Your task to perform on an android device: add a contact in the contacts app Image 0: 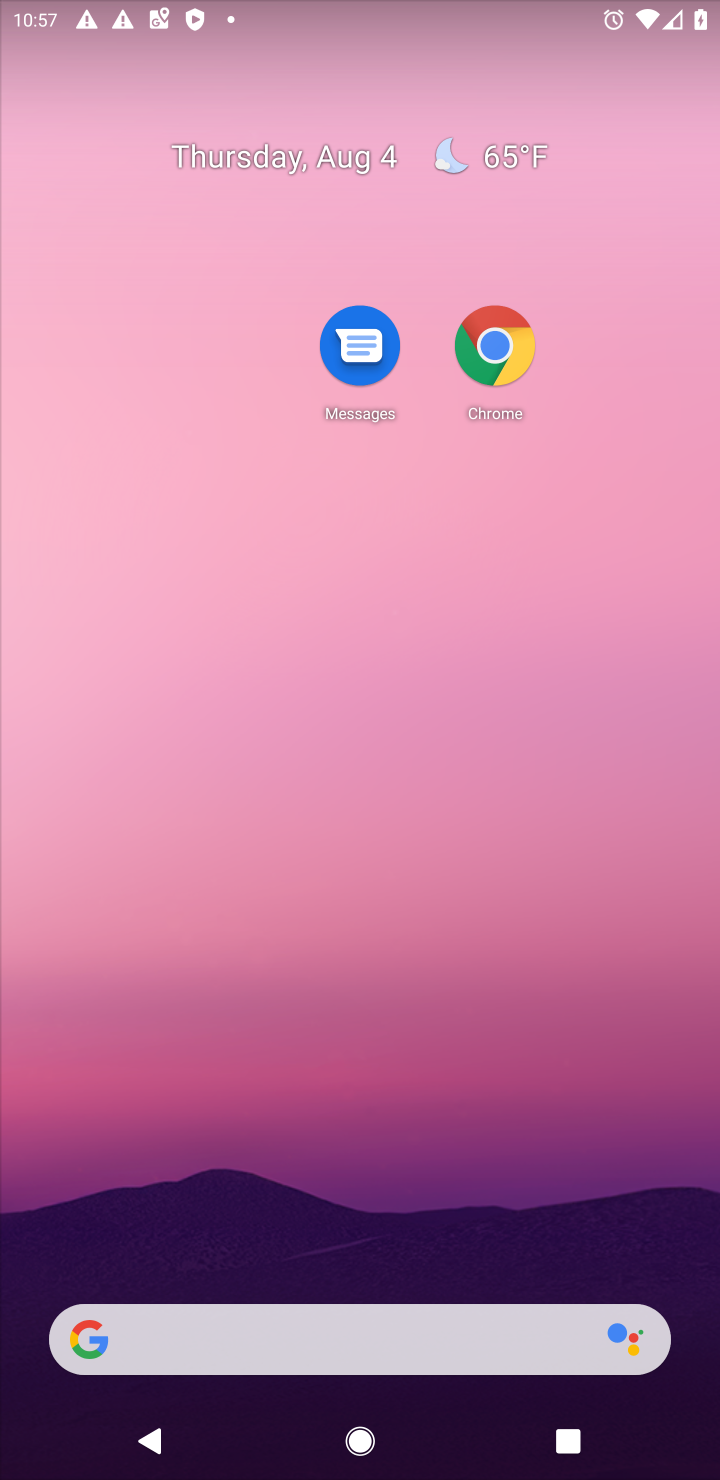
Step 0: drag from (557, 494) to (600, 3)
Your task to perform on an android device: add a contact in the contacts app Image 1: 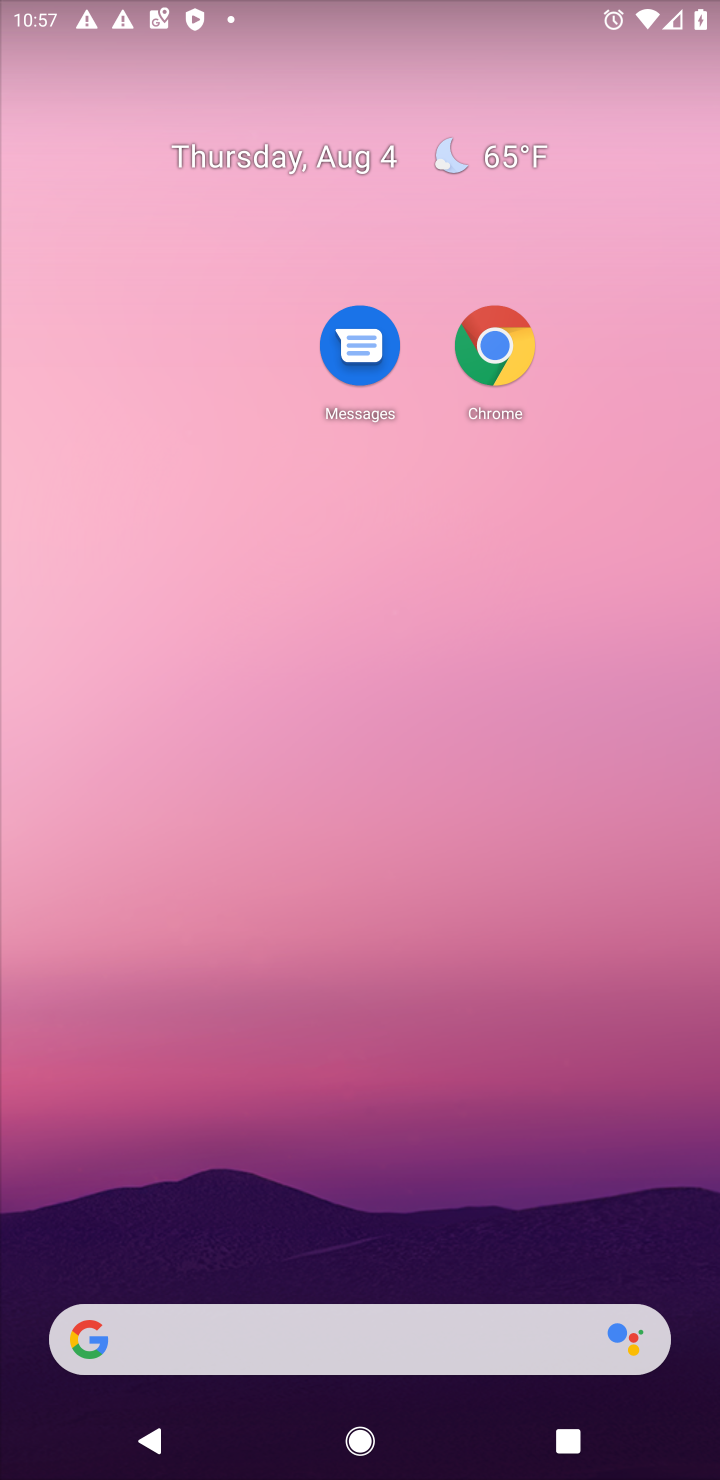
Step 1: drag from (431, 1362) to (451, 19)
Your task to perform on an android device: add a contact in the contacts app Image 2: 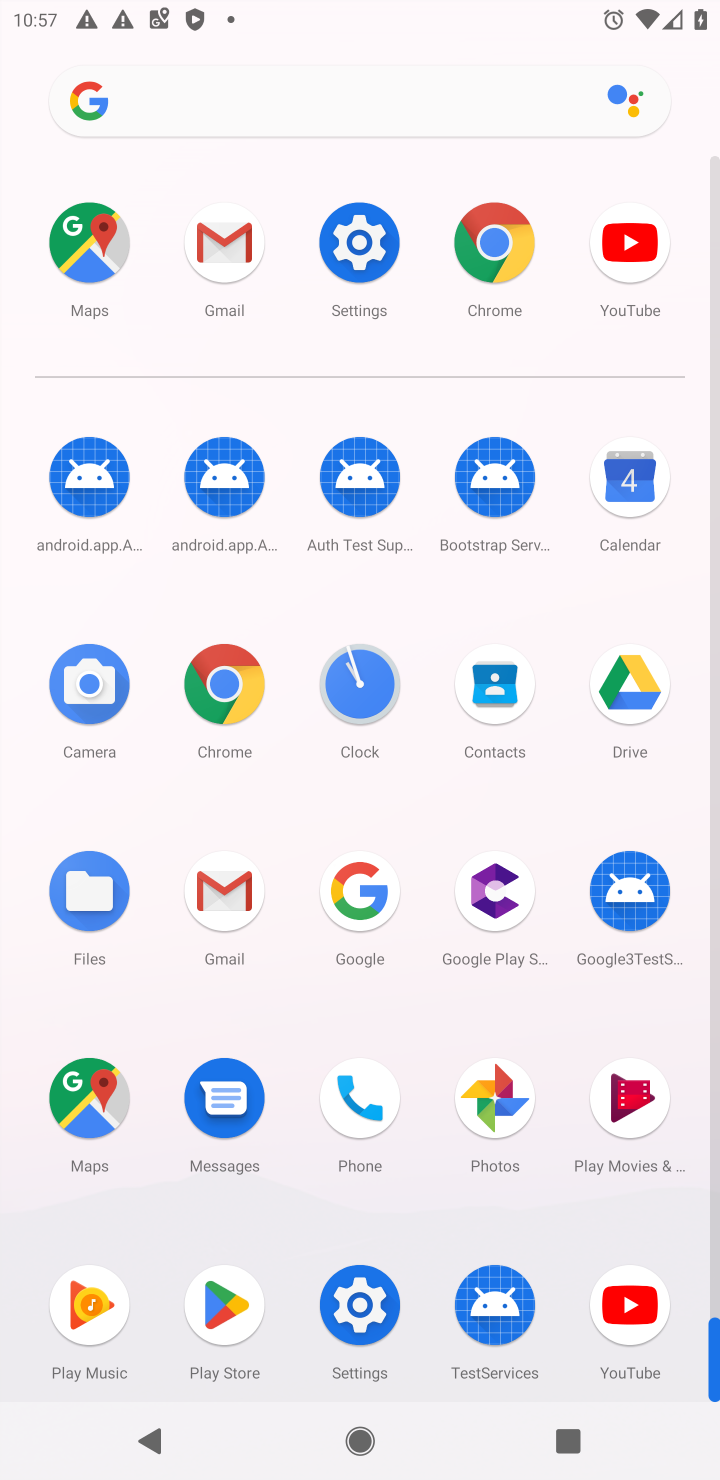
Step 2: click (380, 1108)
Your task to perform on an android device: add a contact in the contacts app Image 3: 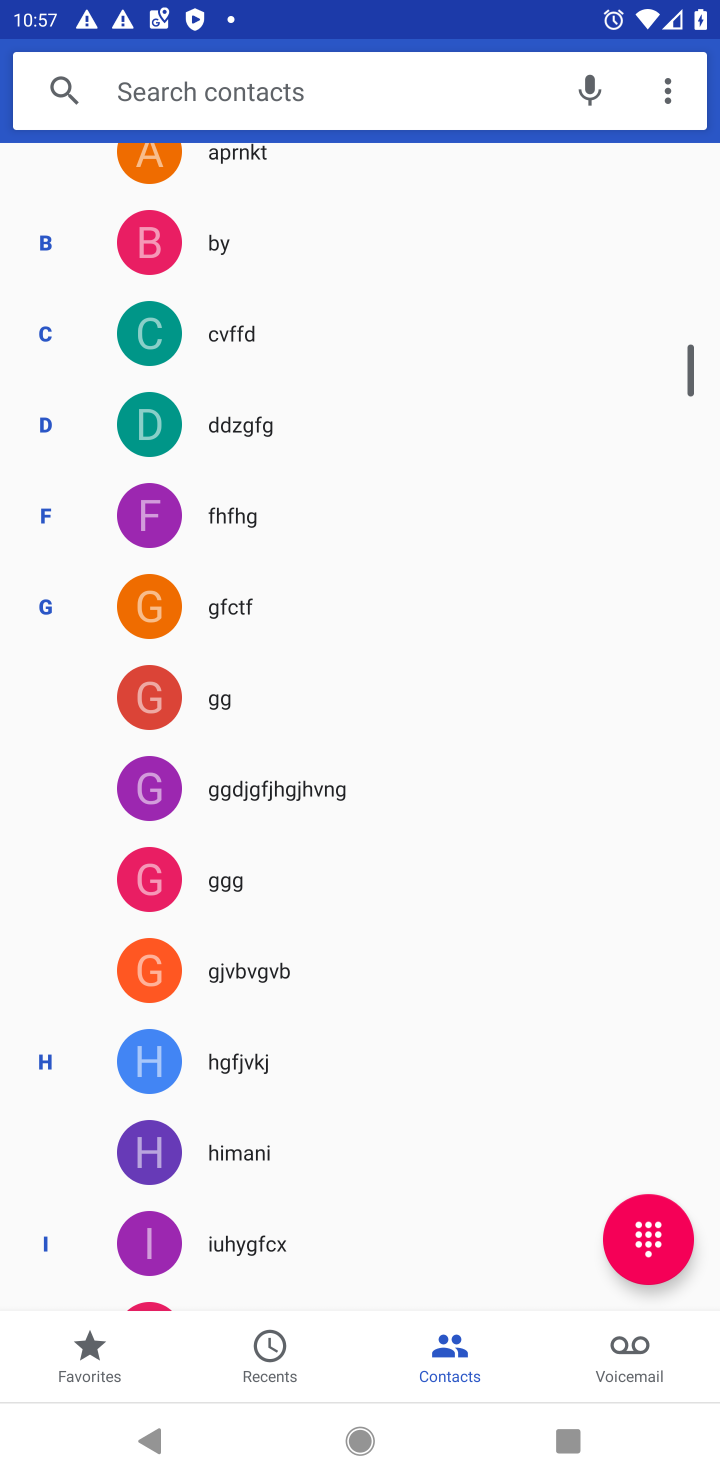
Step 3: drag from (401, 652) to (286, 1422)
Your task to perform on an android device: add a contact in the contacts app Image 4: 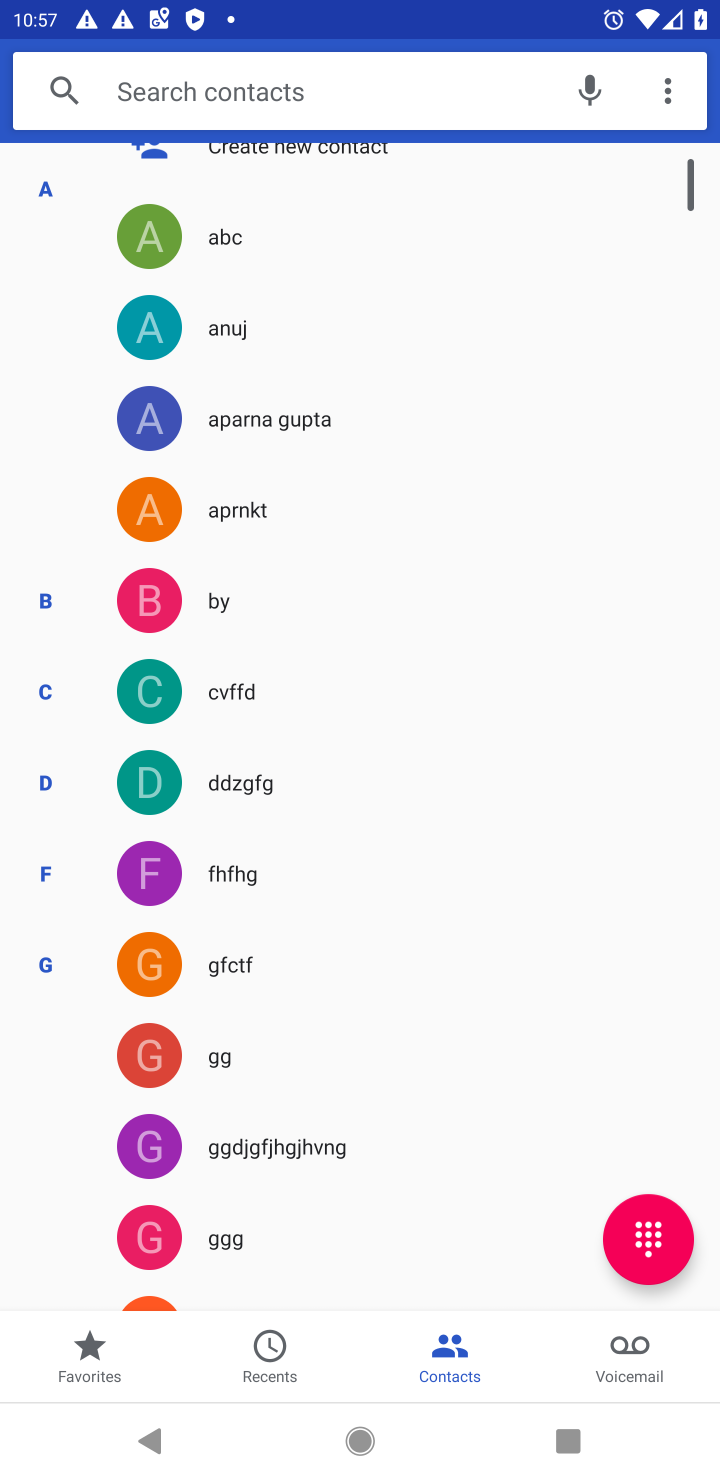
Step 4: drag from (278, 528) to (159, 1335)
Your task to perform on an android device: add a contact in the contacts app Image 5: 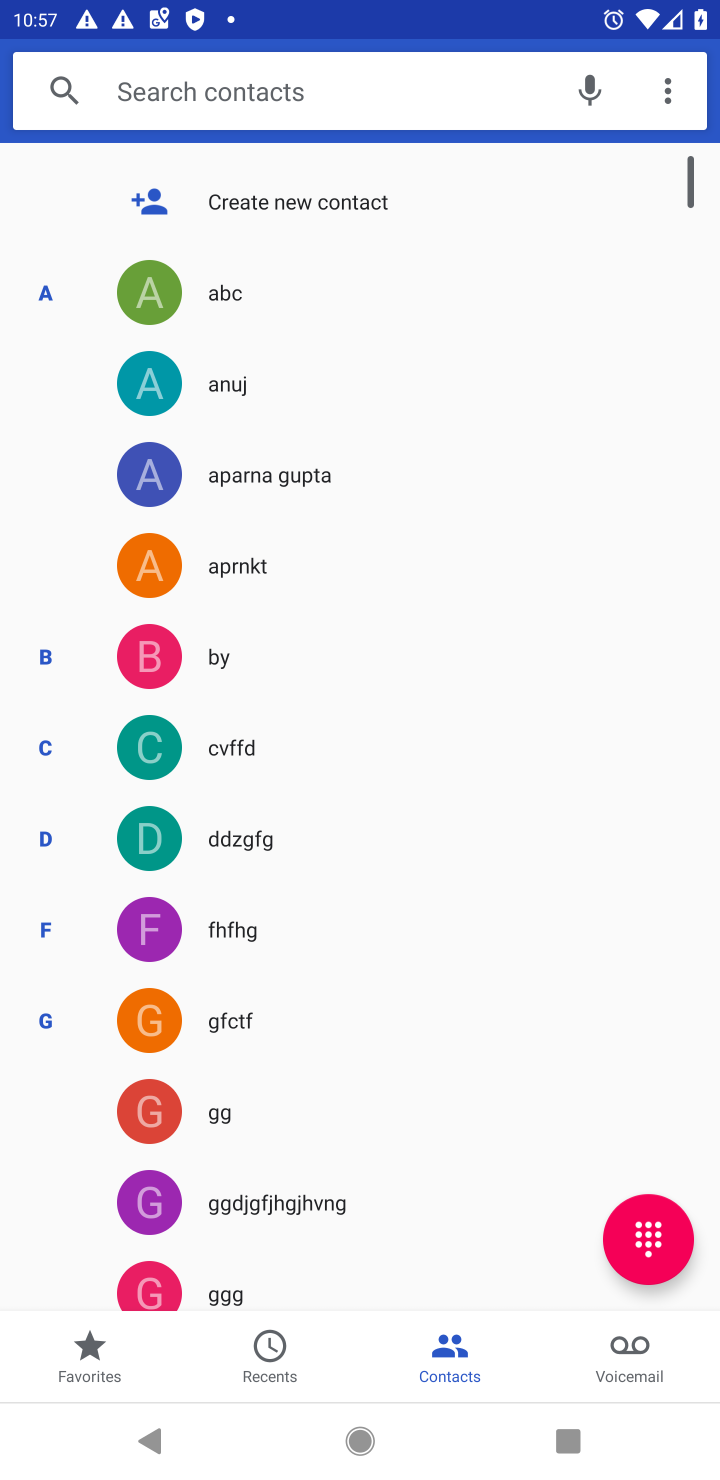
Step 5: click (273, 202)
Your task to perform on an android device: add a contact in the contacts app Image 6: 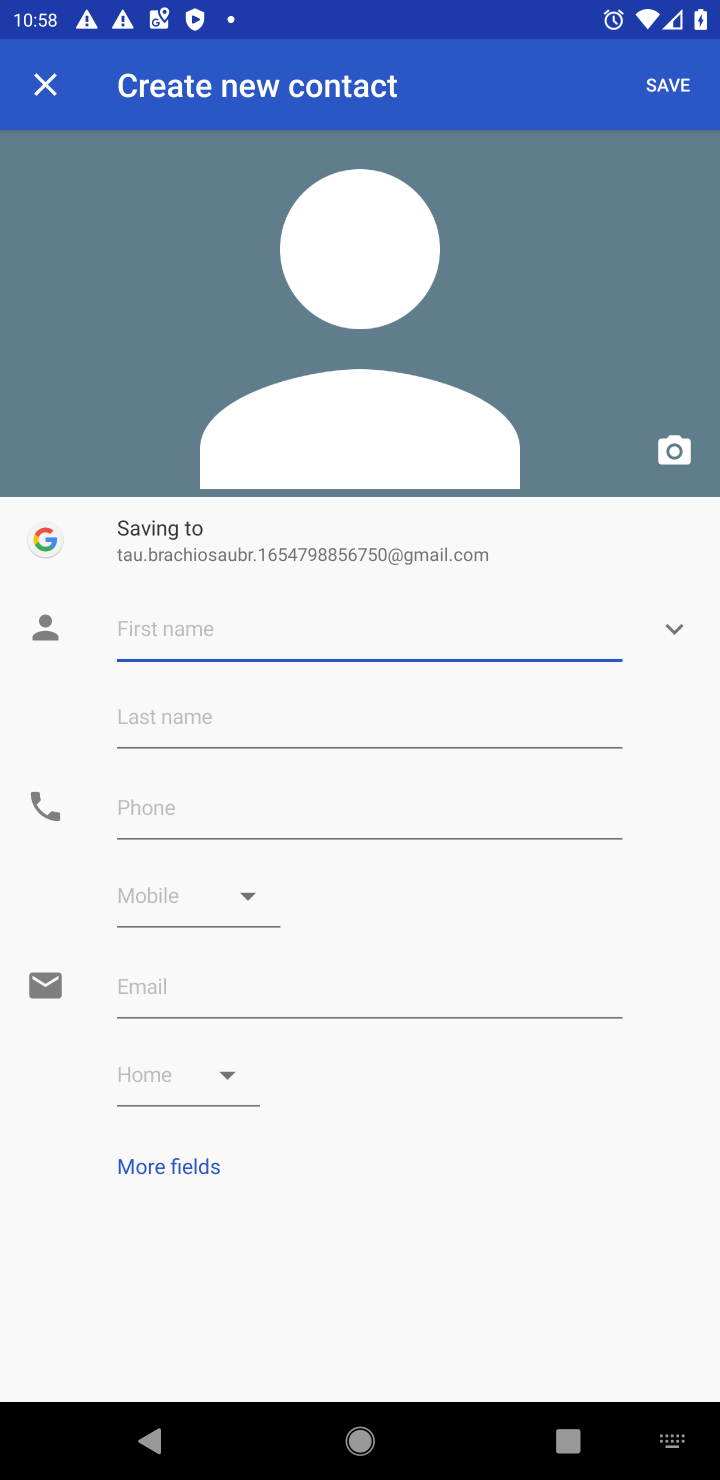
Step 6: type "tyeyty"
Your task to perform on an android device: add a contact in the contacts app Image 7: 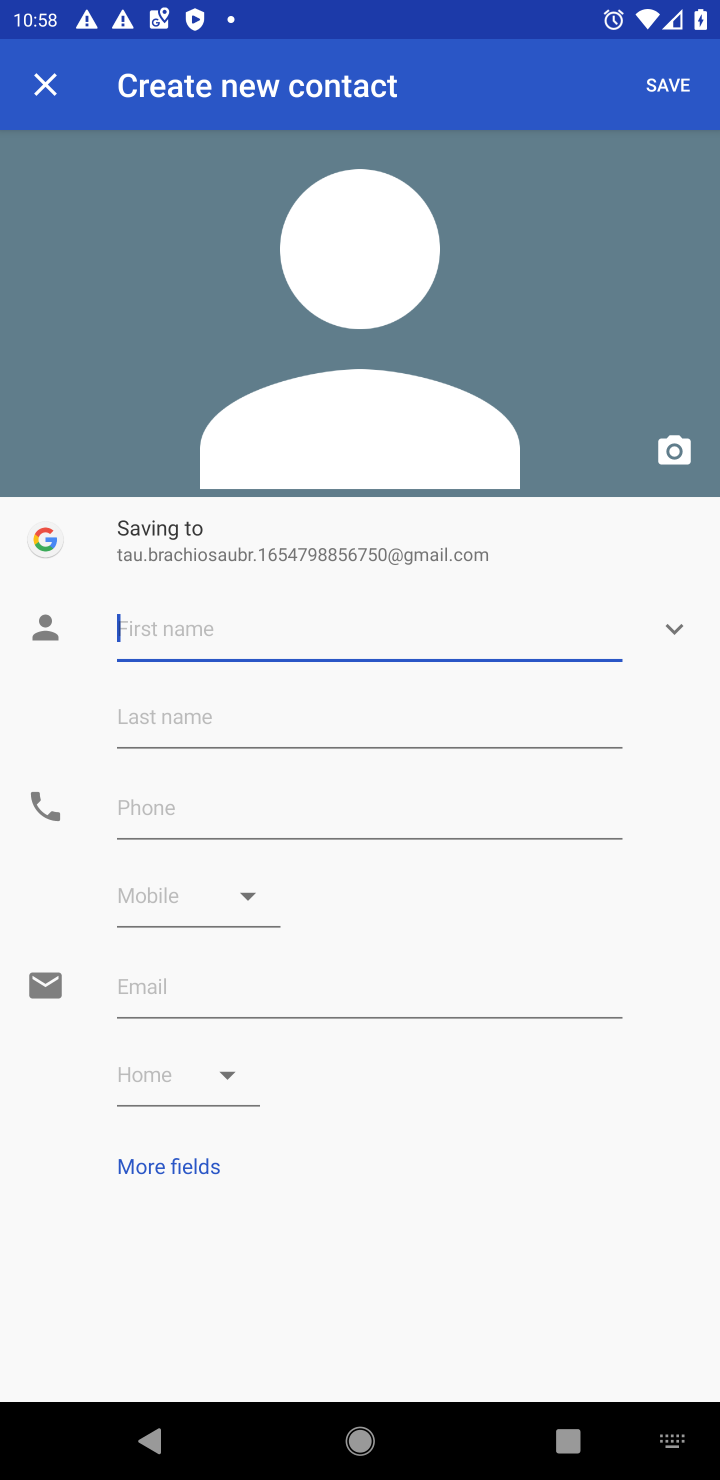
Step 7: click (232, 830)
Your task to perform on an android device: add a contact in the contacts app Image 8: 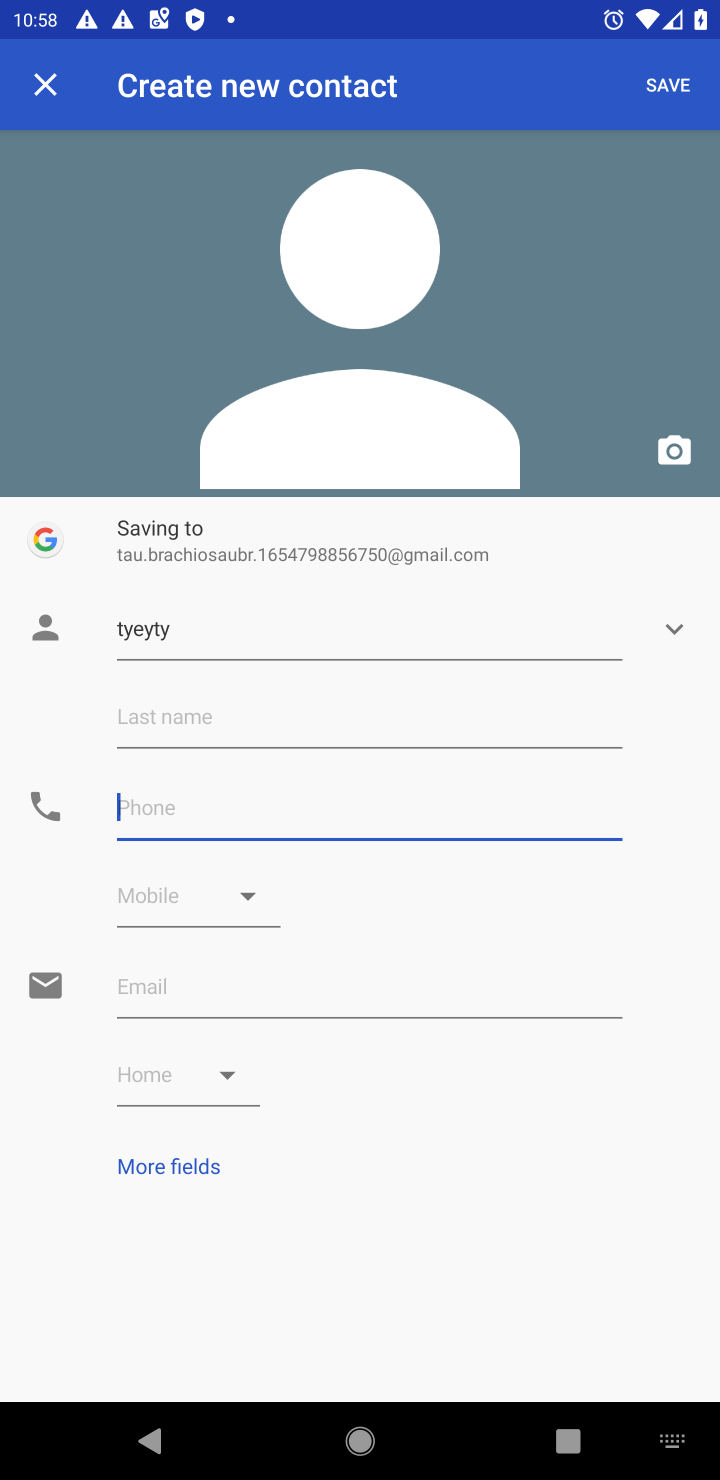
Step 8: type "56787656"
Your task to perform on an android device: add a contact in the contacts app Image 9: 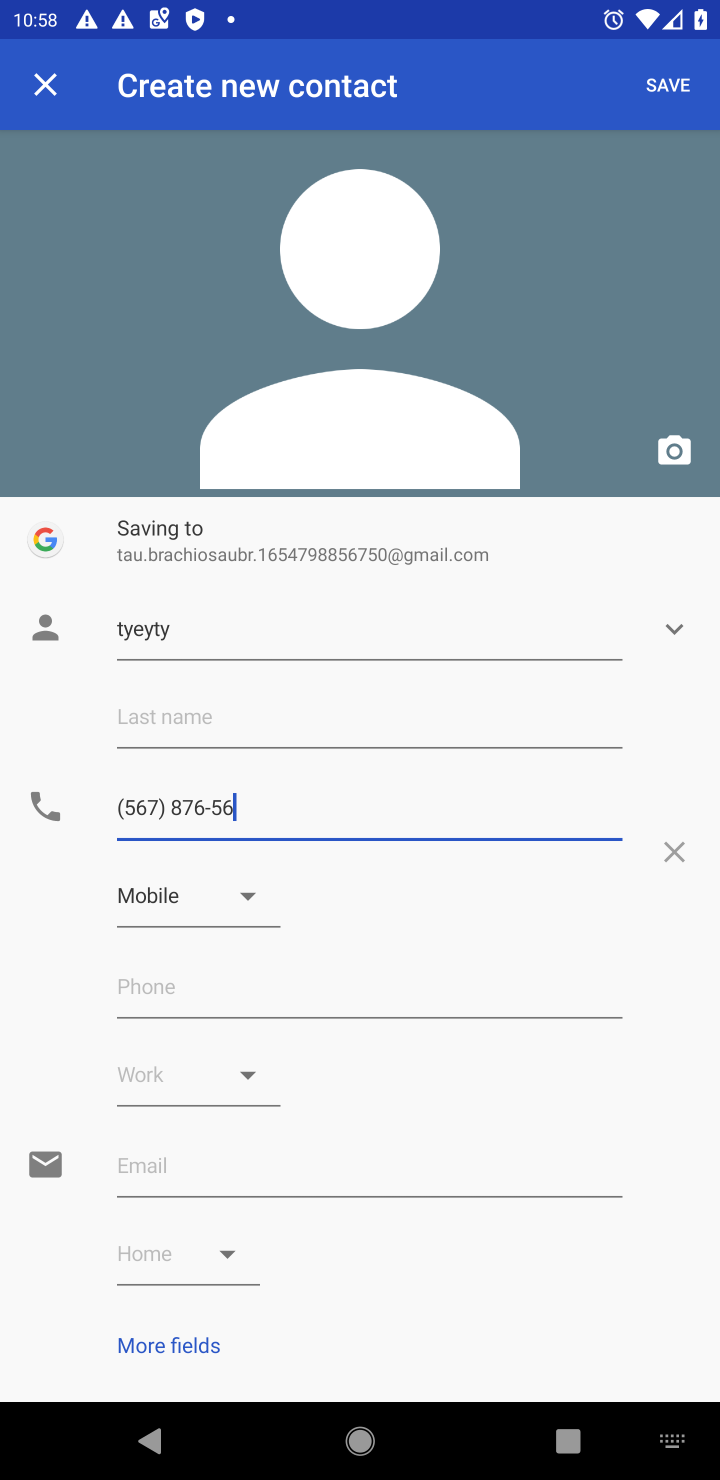
Step 9: click (650, 92)
Your task to perform on an android device: add a contact in the contacts app Image 10: 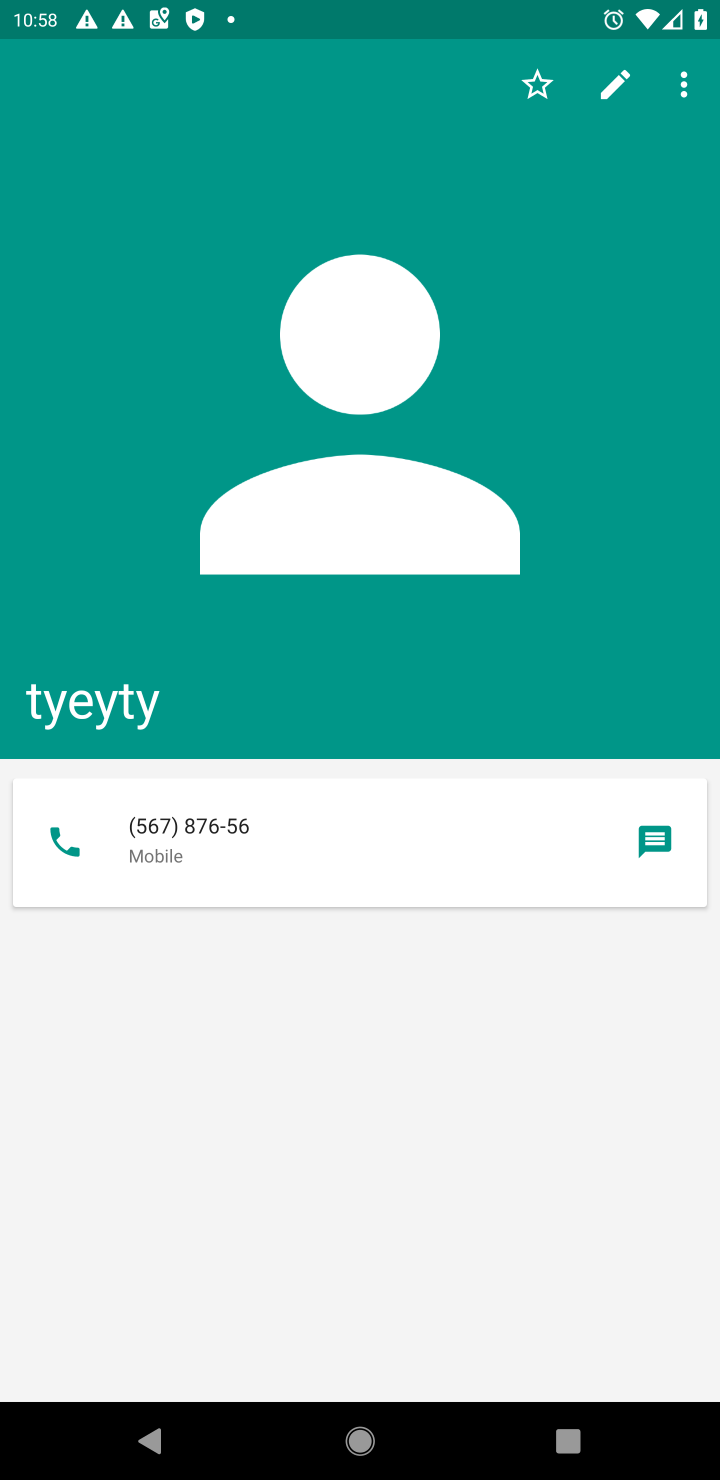
Step 10: task complete